Your task to perform on an android device: Open Google Chrome and click the shortcut for Amazon.com Image 0: 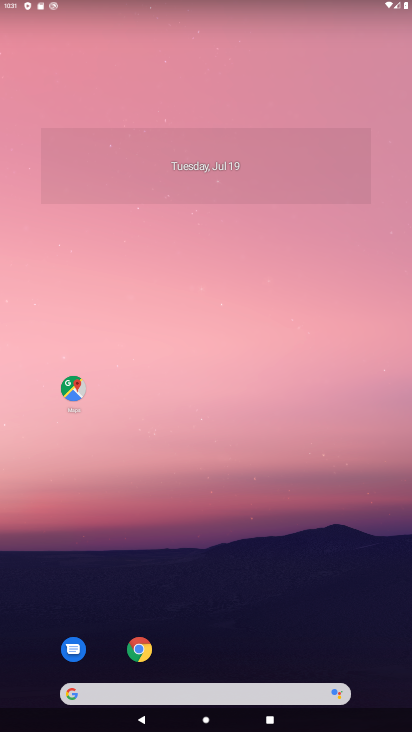
Step 0: drag from (275, 669) to (335, 60)
Your task to perform on an android device: Open Google Chrome and click the shortcut for Amazon.com Image 1: 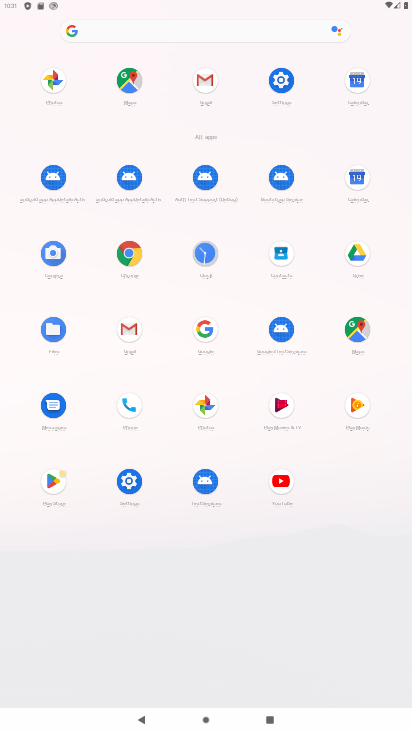
Step 1: click (133, 257)
Your task to perform on an android device: Open Google Chrome and click the shortcut for Amazon.com Image 2: 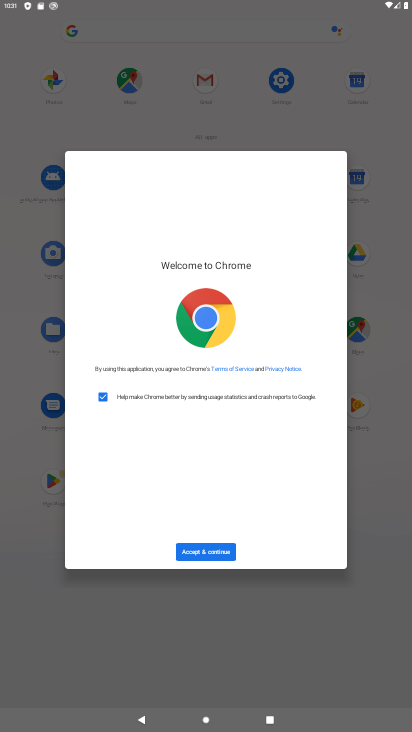
Step 2: click (212, 553)
Your task to perform on an android device: Open Google Chrome and click the shortcut for Amazon.com Image 3: 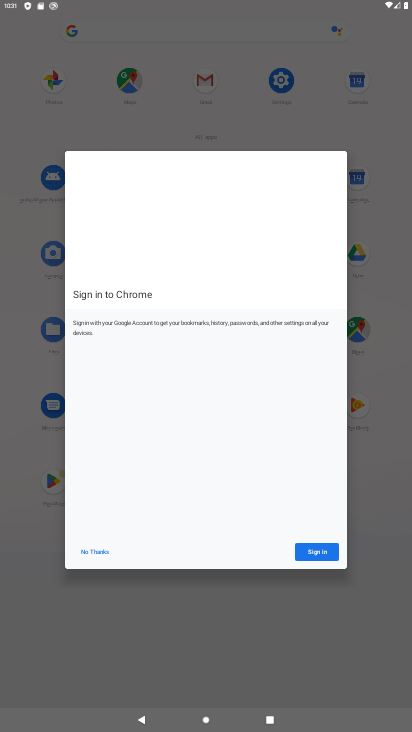
Step 3: click (322, 540)
Your task to perform on an android device: Open Google Chrome and click the shortcut for Amazon.com Image 4: 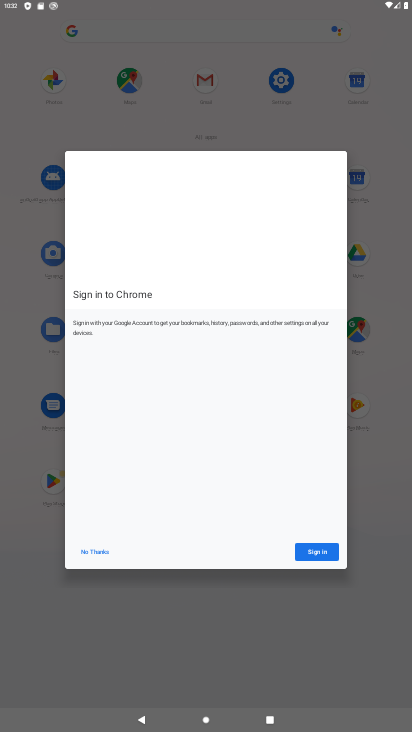
Step 4: click (110, 553)
Your task to perform on an android device: Open Google Chrome and click the shortcut for Amazon.com Image 5: 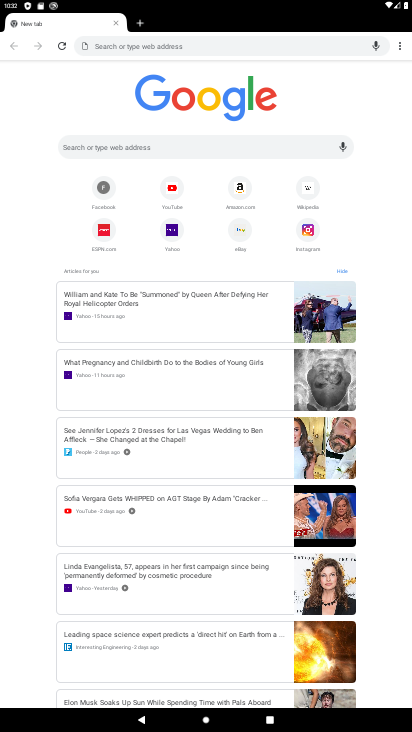
Step 5: click (241, 189)
Your task to perform on an android device: Open Google Chrome and click the shortcut for Amazon.com Image 6: 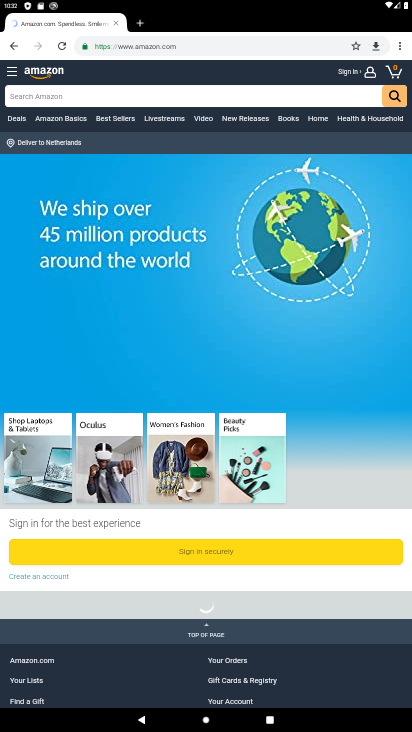
Step 6: task complete